Your task to perform on an android device: turn on the 12-hour format for clock Image 0: 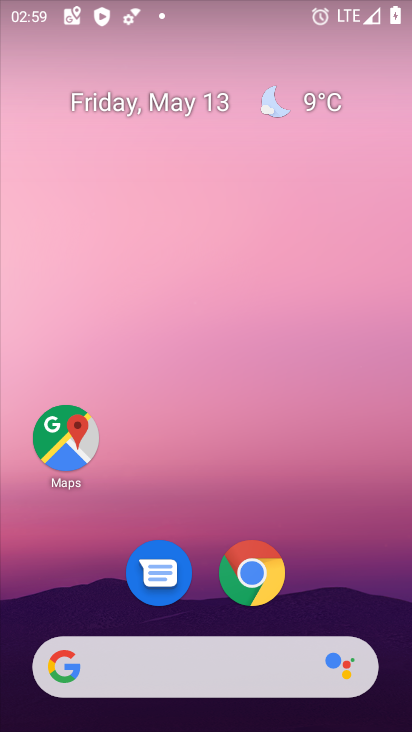
Step 0: drag from (343, 563) to (252, 117)
Your task to perform on an android device: turn on the 12-hour format for clock Image 1: 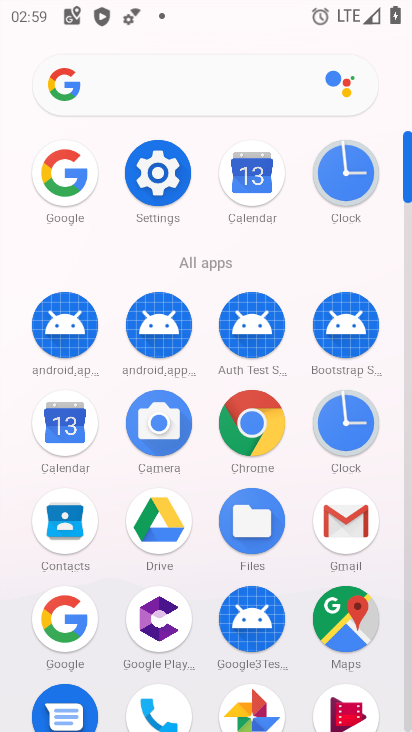
Step 1: click (346, 171)
Your task to perform on an android device: turn on the 12-hour format for clock Image 2: 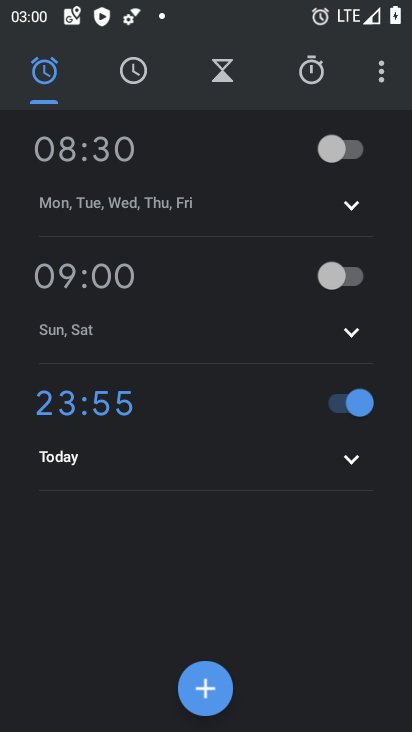
Step 2: click (383, 68)
Your task to perform on an android device: turn on the 12-hour format for clock Image 3: 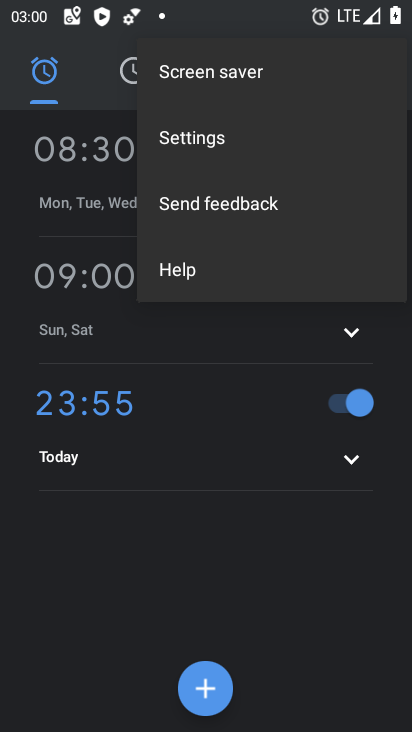
Step 3: click (210, 139)
Your task to perform on an android device: turn on the 12-hour format for clock Image 4: 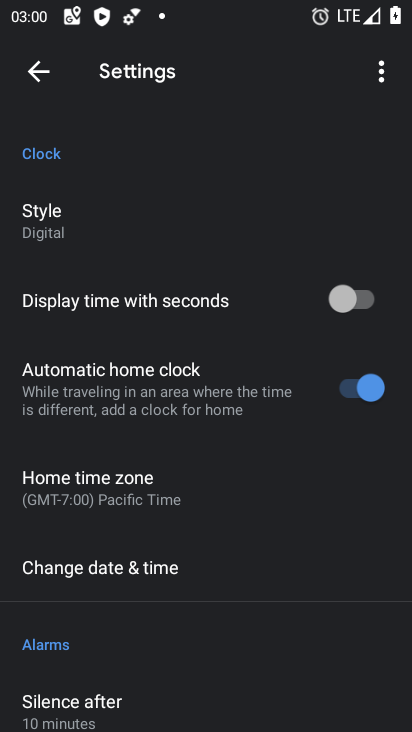
Step 4: click (143, 567)
Your task to perform on an android device: turn on the 12-hour format for clock Image 5: 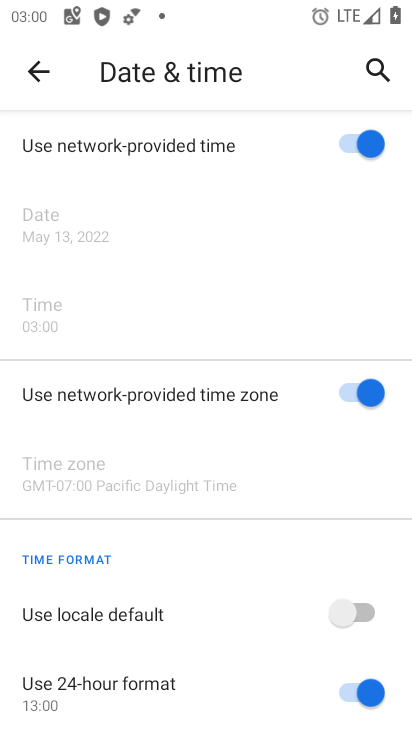
Step 5: drag from (216, 590) to (225, 442)
Your task to perform on an android device: turn on the 12-hour format for clock Image 6: 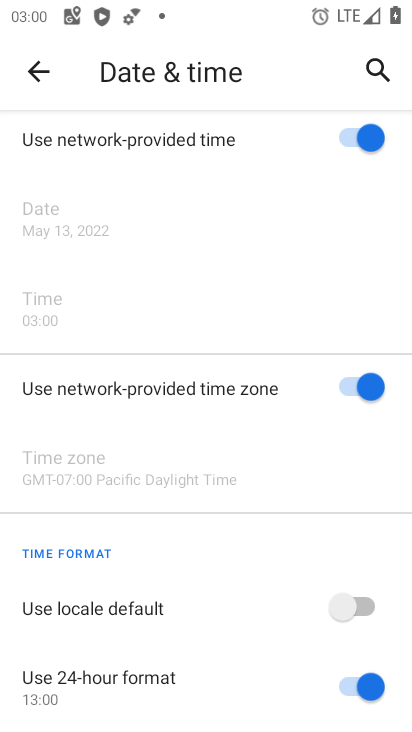
Step 6: click (339, 606)
Your task to perform on an android device: turn on the 12-hour format for clock Image 7: 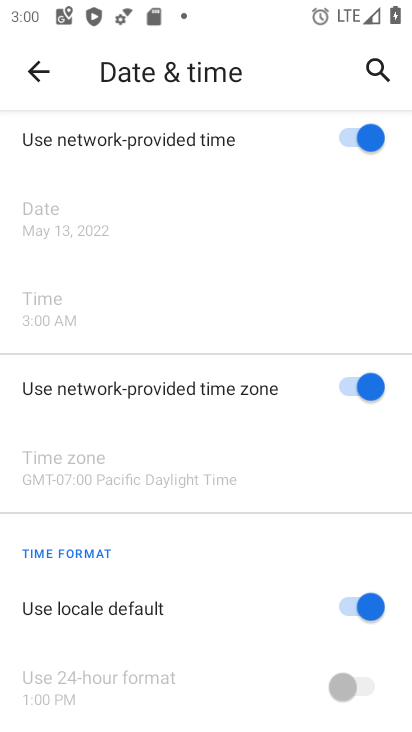
Step 7: task complete